Your task to perform on an android device: toggle notifications settings in the gmail app Image 0: 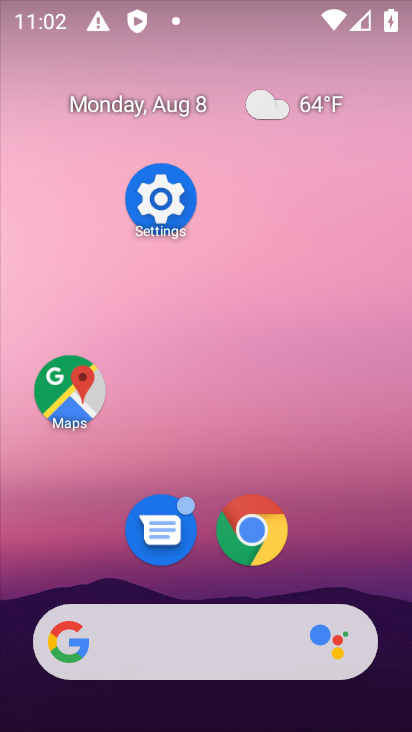
Step 0: drag from (273, 626) to (193, 204)
Your task to perform on an android device: toggle notifications settings in the gmail app Image 1: 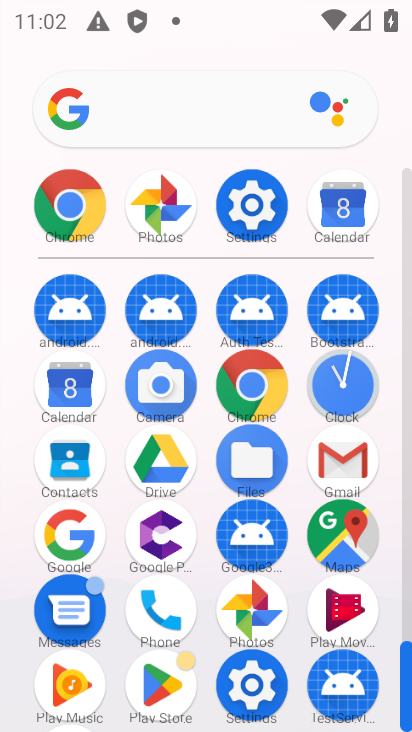
Step 1: click (195, 248)
Your task to perform on an android device: toggle notifications settings in the gmail app Image 2: 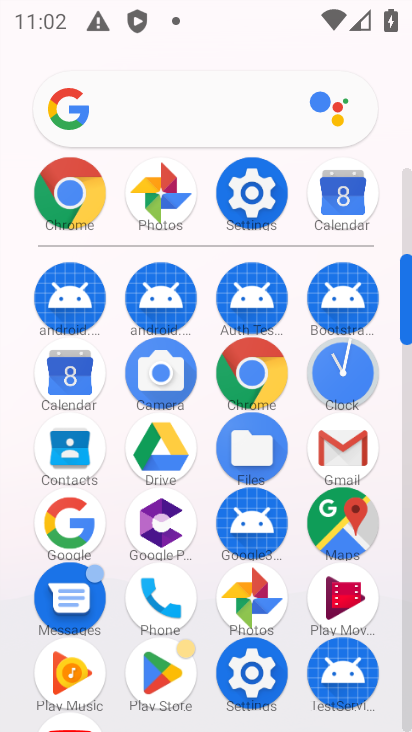
Step 2: click (348, 443)
Your task to perform on an android device: toggle notifications settings in the gmail app Image 3: 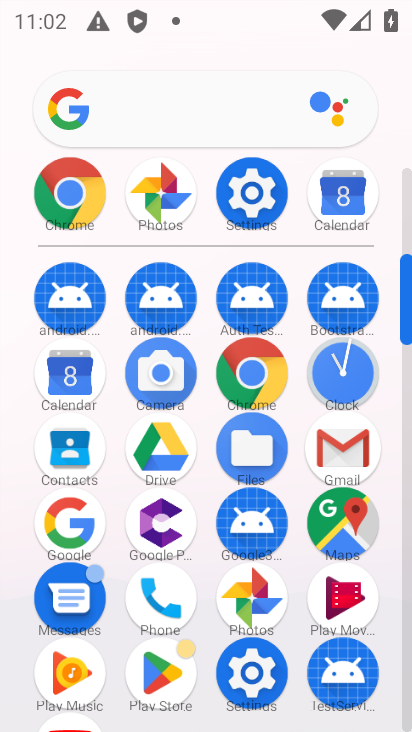
Step 3: click (348, 443)
Your task to perform on an android device: toggle notifications settings in the gmail app Image 4: 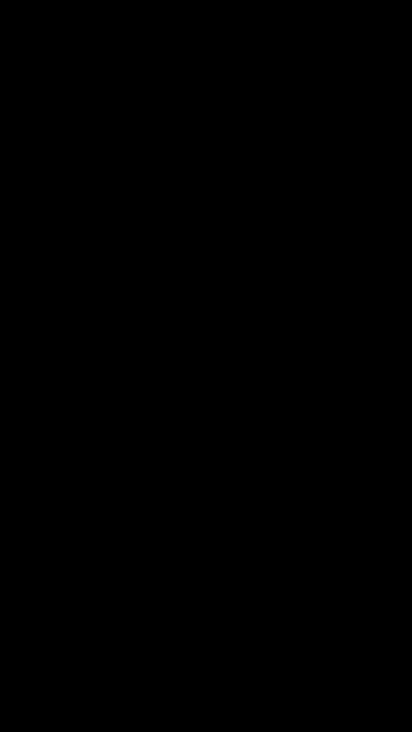
Step 4: click (351, 446)
Your task to perform on an android device: toggle notifications settings in the gmail app Image 5: 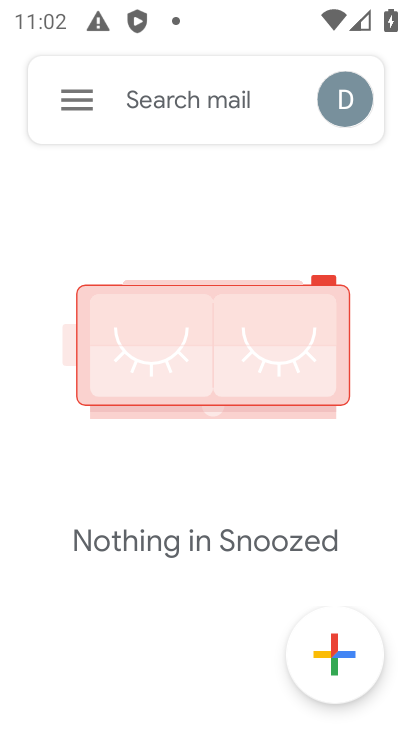
Step 5: click (79, 92)
Your task to perform on an android device: toggle notifications settings in the gmail app Image 6: 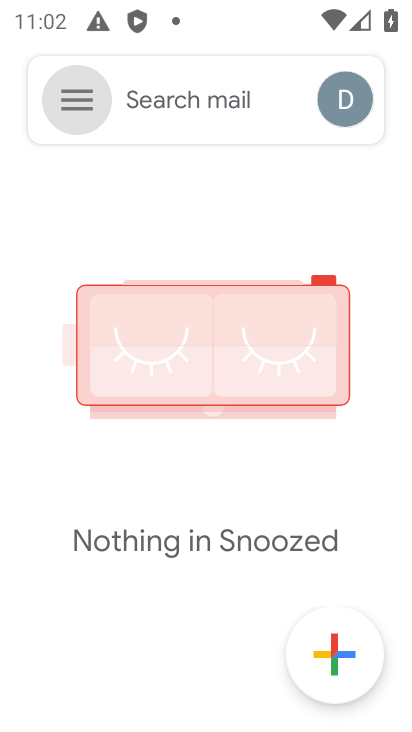
Step 6: click (78, 99)
Your task to perform on an android device: toggle notifications settings in the gmail app Image 7: 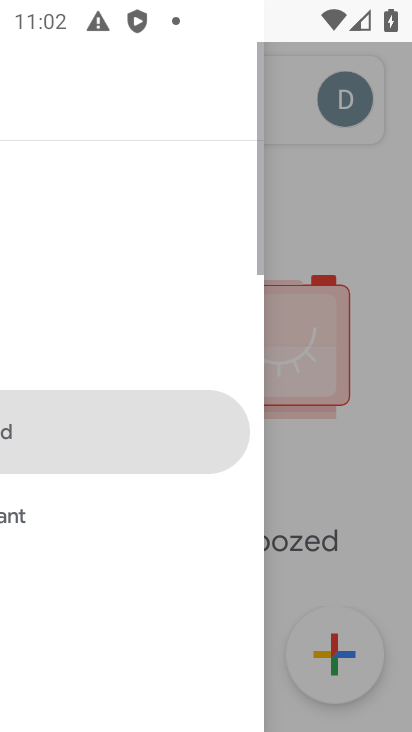
Step 7: click (78, 99)
Your task to perform on an android device: toggle notifications settings in the gmail app Image 8: 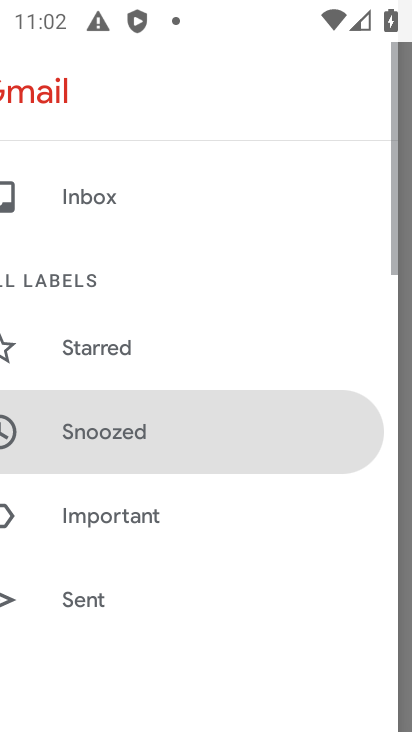
Step 8: drag from (78, 99) to (164, 579)
Your task to perform on an android device: toggle notifications settings in the gmail app Image 9: 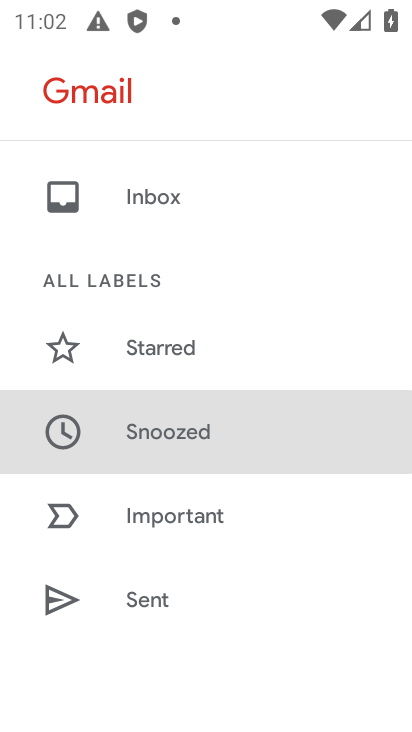
Step 9: drag from (164, 577) to (141, 262)
Your task to perform on an android device: toggle notifications settings in the gmail app Image 10: 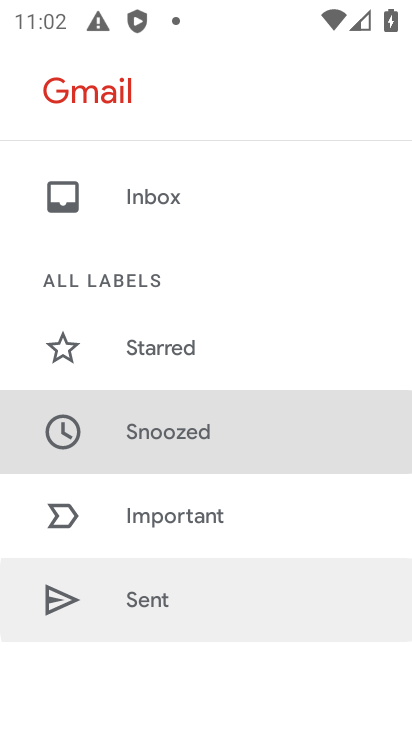
Step 10: drag from (206, 605) to (234, 226)
Your task to perform on an android device: toggle notifications settings in the gmail app Image 11: 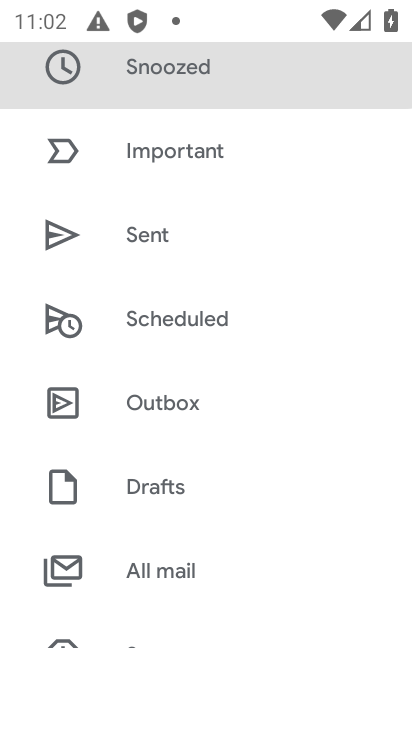
Step 11: drag from (233, 477) to (235, 171)
Your task to perform on an android device: toggle notifications settings in the gmail app Image 12: 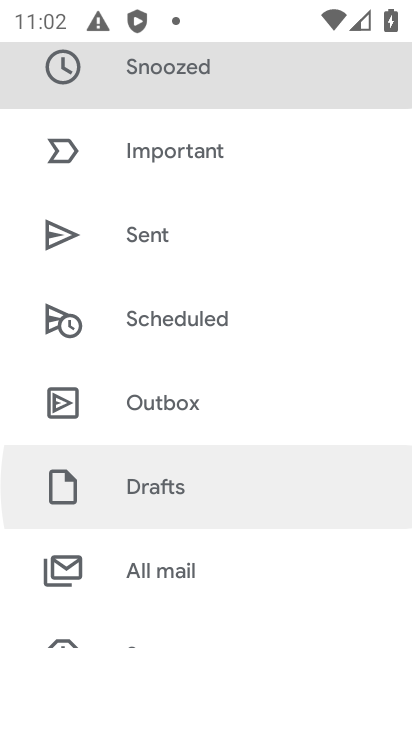
Step 12: drag from (304, 488) to (344, 183)
Your task to perform on an android device: toggle notifications settings in the gmail app Image 13: 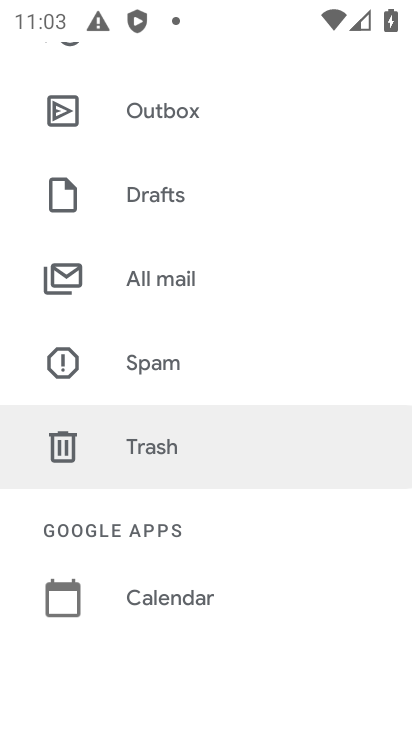
Step 13: drag from (281, 525) to (203, 265)
Your task to perform on an android device: toggle notifications settings in the gmail app Image 14: 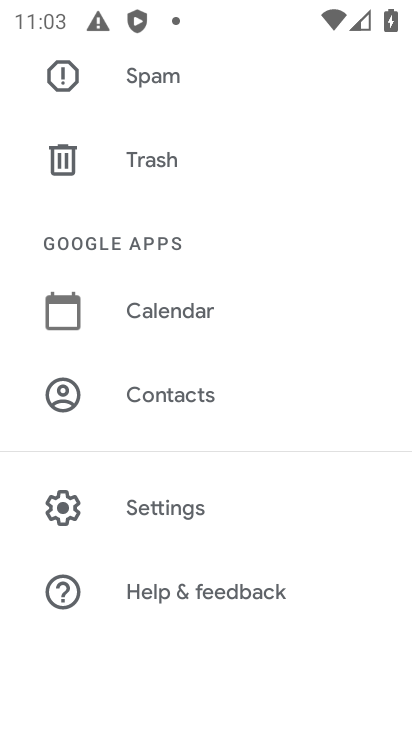
Step 14: drag from (230, 561) to (230, 197)
Your task to perform on an android device: toggle notifications settings in the gmail app Image 15: 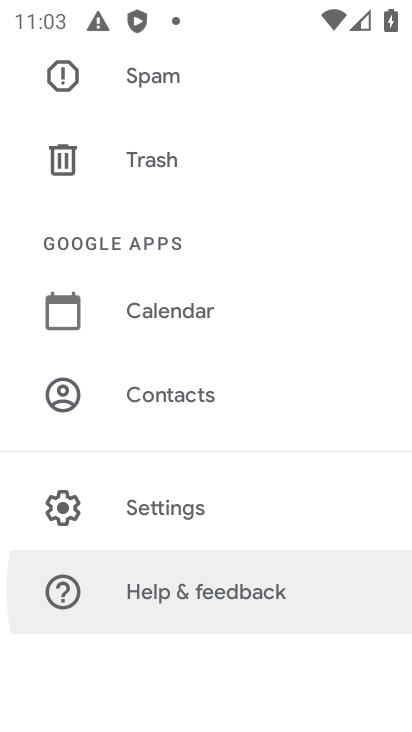
Step 15: drag from (230, 488) to (215, 263)
Your task to perform on an android device: toggle notifications settings in the gmail app Image 16: 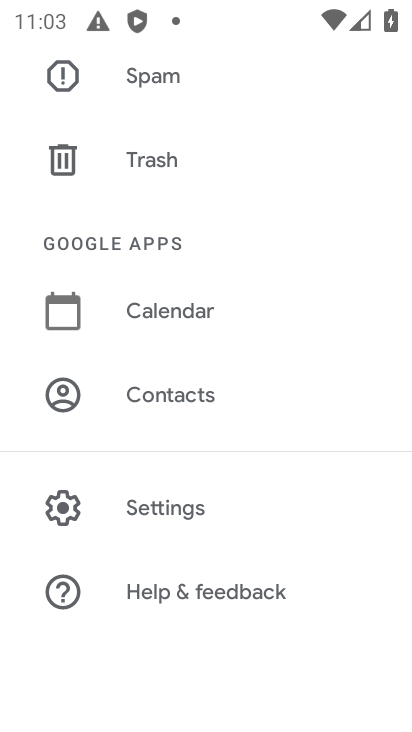
Step 16: click (171, 514)
Your task to perform on an android device: toggle notifications settings in the gmail app Image 17: 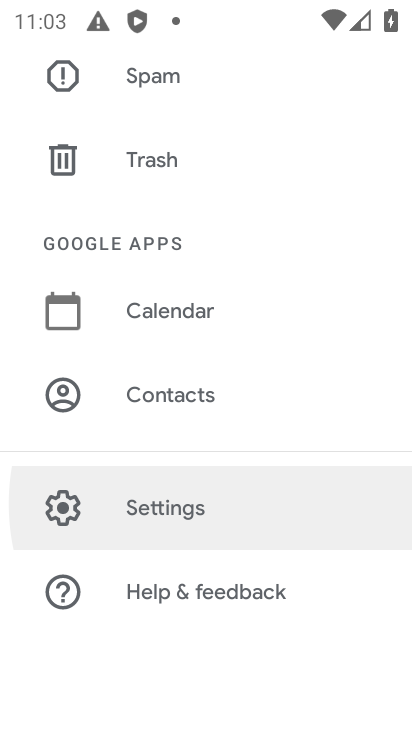
Step 17: click (171, 514)
Your task to perform on an android device: toggle notifications settings in the gmail app Image 18: 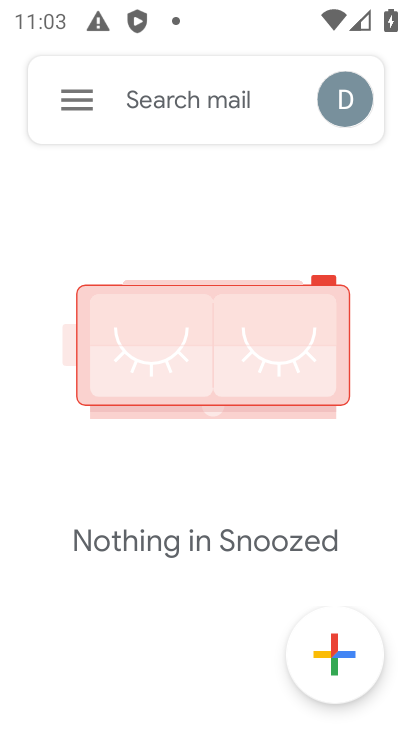
Step 18: click (168, 515)
Your task to perform on an android device: toggle notifications settings in the gmail app Image 19: 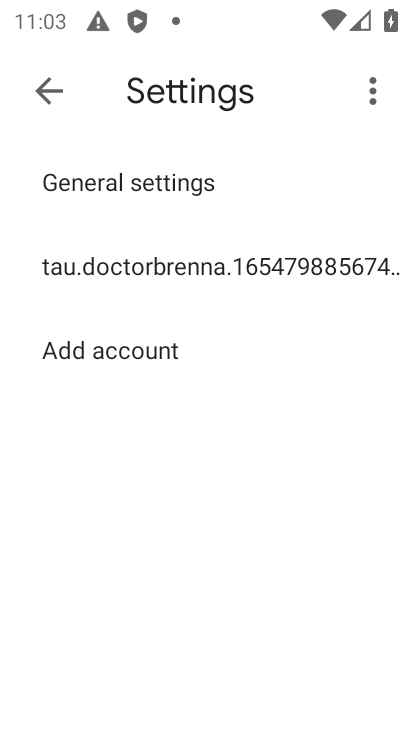
Step 19: click (167, 270)
Your task to perform on an android device: toggle notifications settings in the gmail app Image 20: 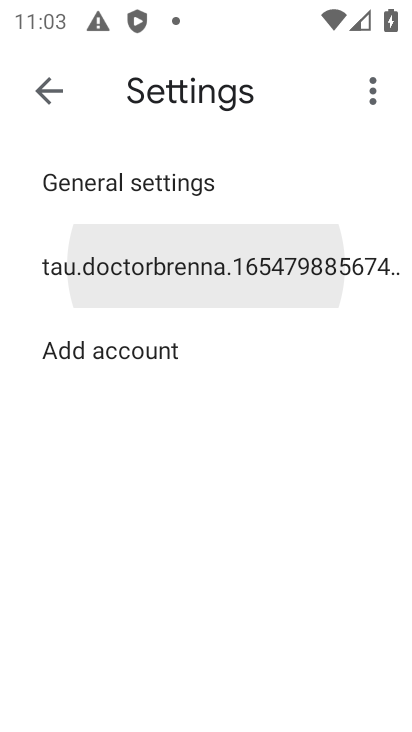
Step 20: click (167, 270)
Your task to perform on an android device: toggle notifications settings in the gmail app Image 21: 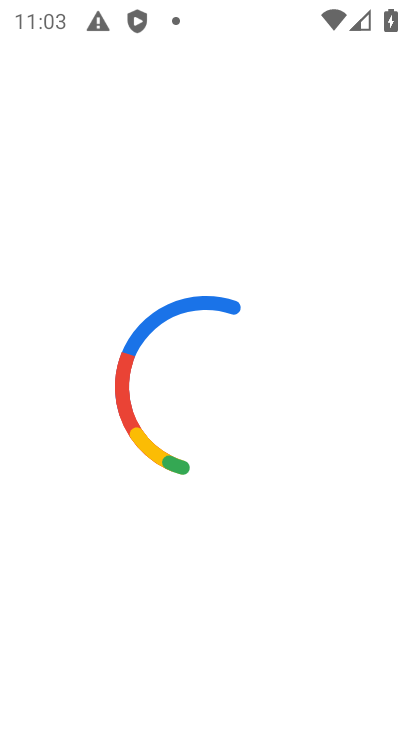
Step 21: click (230, 151)
Your task to perform on an android device: toggle notifications settings in the gmail app Image 22: 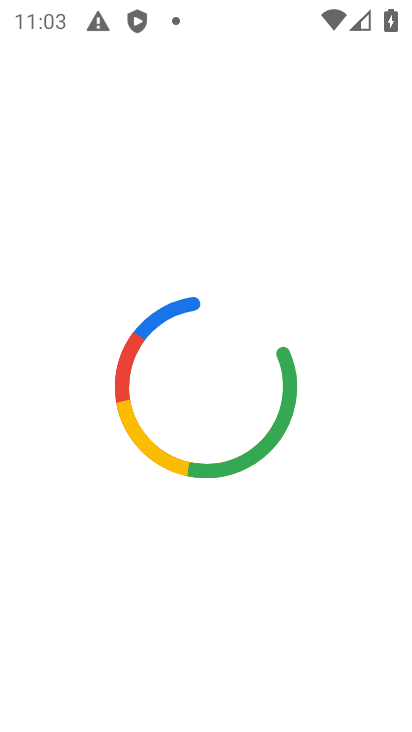
Step 22: drag from (218, 600) to (216, 448)
Your task to perform on an android device: toggle notifications settings in the gmail app Image 23: 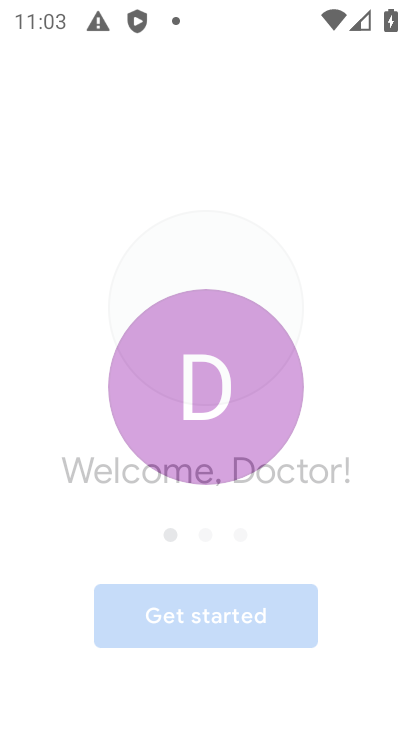
Step 23: press back button
Your task to perform on an android device: toggle notifications settings in the gmail app Image 24: 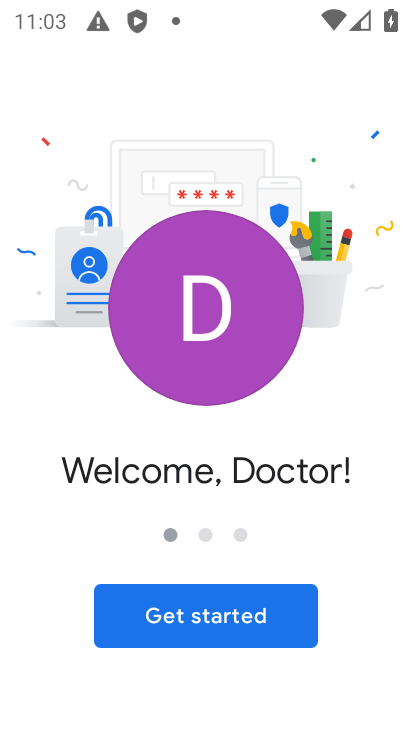
Step 24: press back button
Your task to perform on an android device: toggle notifications settings in the gmail app Image 25: 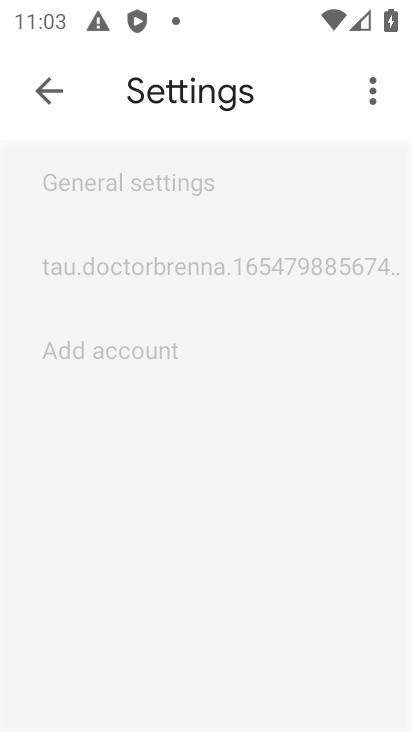
Step 25: press home button
Your task to perform on an android device: toggle notifications settings in the gmail app Image 26: 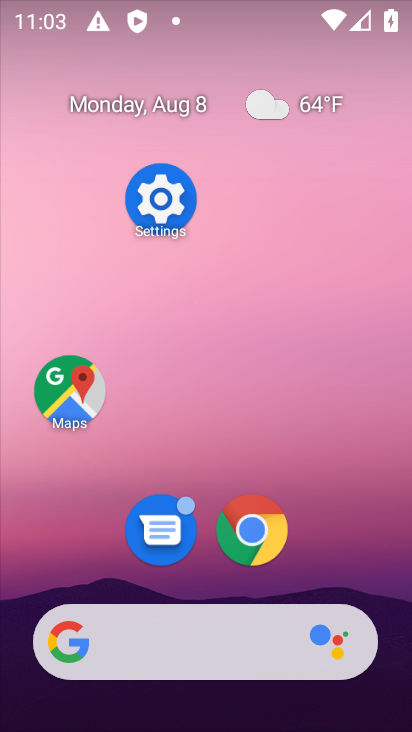
Step 26: drag from (279, 690) to (228, 209)
Your task to perform on an android device: toggle notifications settings in the gmail app Image 27: 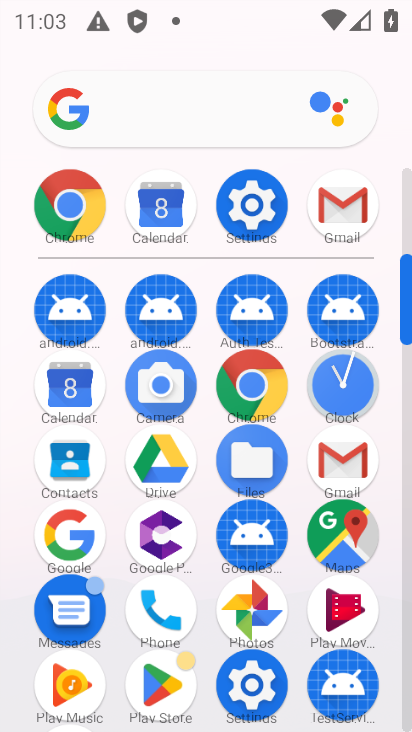
Step 27: click (235, 212)
Your task to perform on an android device: toggle notifications settings in the gmail app Image 28: 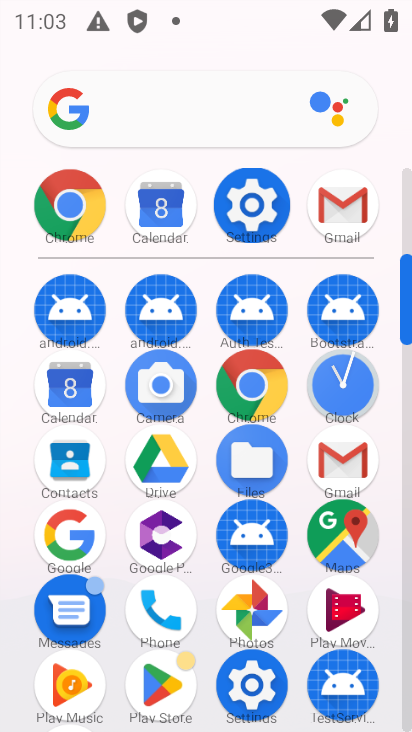
Step 28: click (236, 213)
Your task to perform on an android device: toggle notifications settings in the gmail app Image 29: 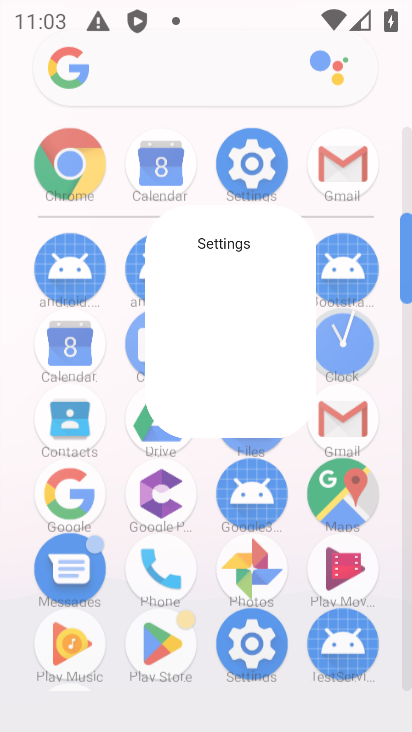
Step 29: click (238, 213)
Your task to perform on an android device: toggle notifications settings in the gmail app Image 30: 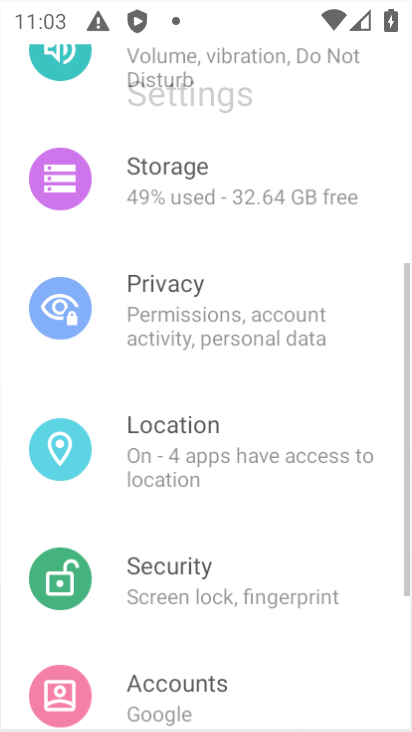
Step 30: click (239, 213)
Your task to perform on an android device: toggle notifications settings in the gmail app Image 31: 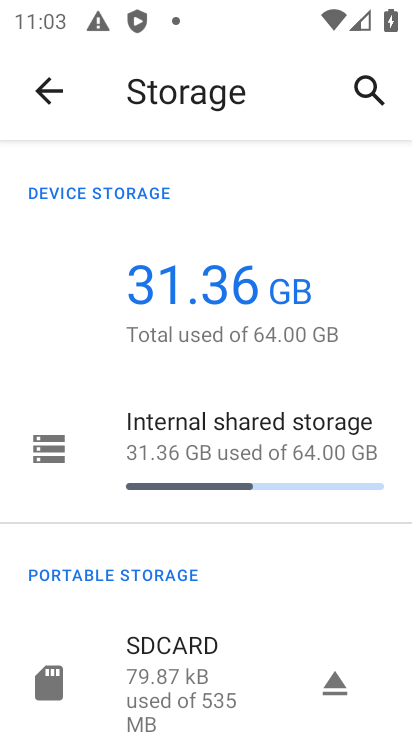
Step 31: click (32, 94)
Your task to perform on an android device: toggle notifications settings in the gmail app Image 32: 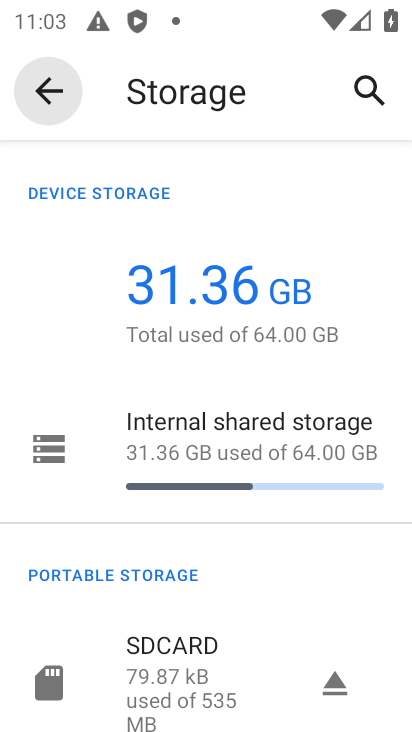
Step 32: click (33, 96)
Your task to perform on an android device: toggle notifications settings in the gmail app Image 33: 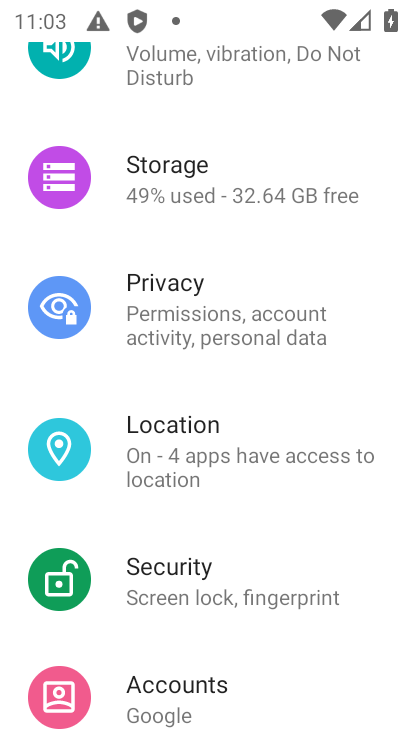
Step 33: drag from (173, 625) to (105, 155)
Your task to perform on an android device: toggle notifications settings in the gmail app Image 34: 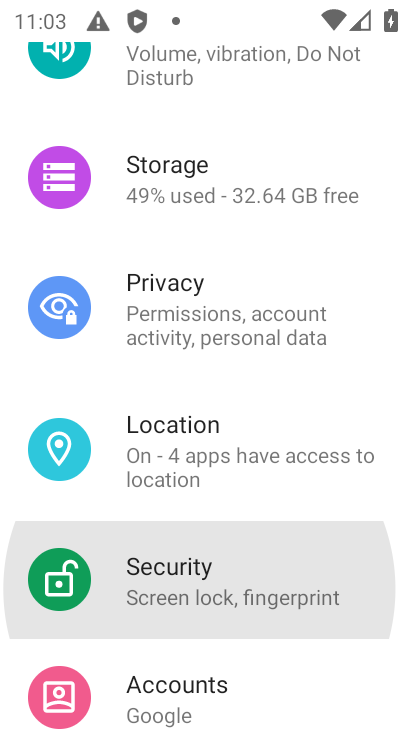
Step 34: drag from (169, 551) to (173, 164)
Your task to perform on an android device: toggle notifications settings in the gmail app Image 35: 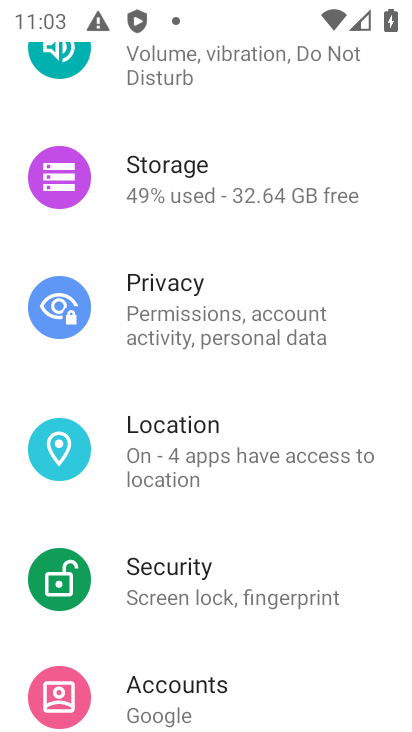
Step 35: drag from (204, 608) to (188, 149)
Your task to perform on an android device: toggle notifications settings in the gmail app Image 36: 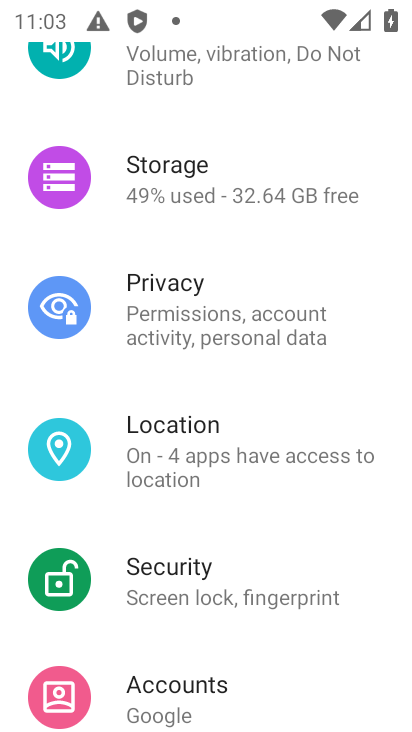
Step 36: drag from (139, 577) to (121, 232)
Your task to perform on an android device: toggle notifications settings in the gmail app Image 37: 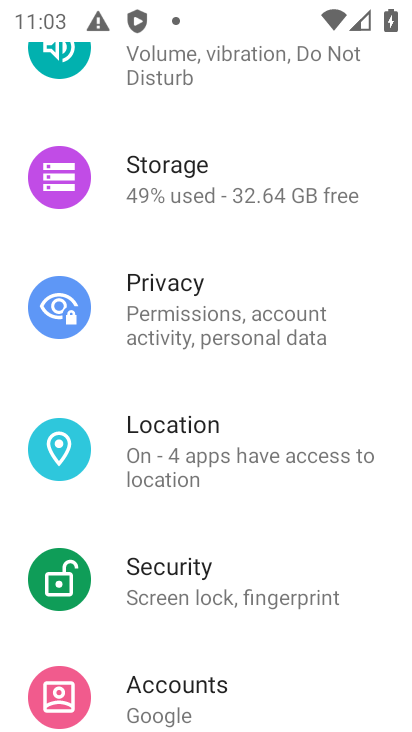
Step 37: drag from (180, 148) to (213, 551)
Your task to perform on an android device: toggle notifications settings in the gmail app Image 38: 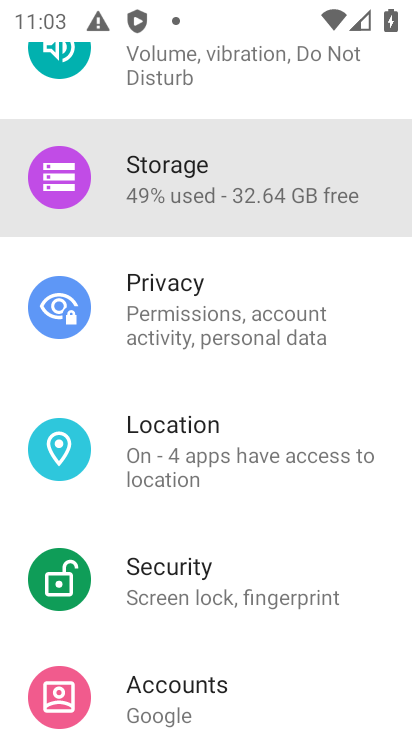
Step 38: drag from (161, 222) to (177, 589)
Your task to perform on an android device: toggle notifications settings in the gmail app Image 39: 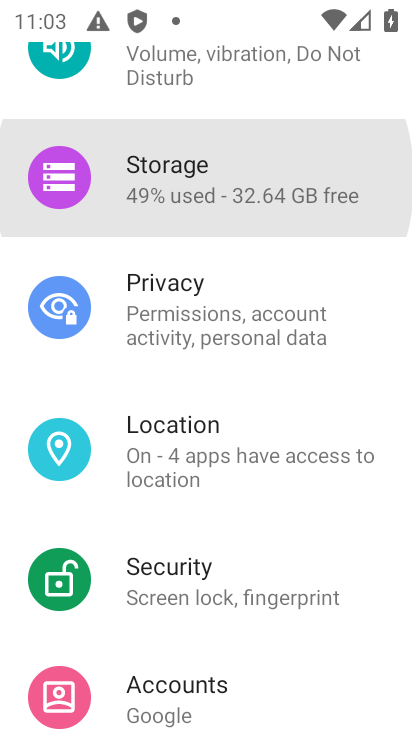
Step 39: drag from (106, 176) to (237, 645)
Your task to perform on an android device: toggle notifications settings in the gmail app Image 40: 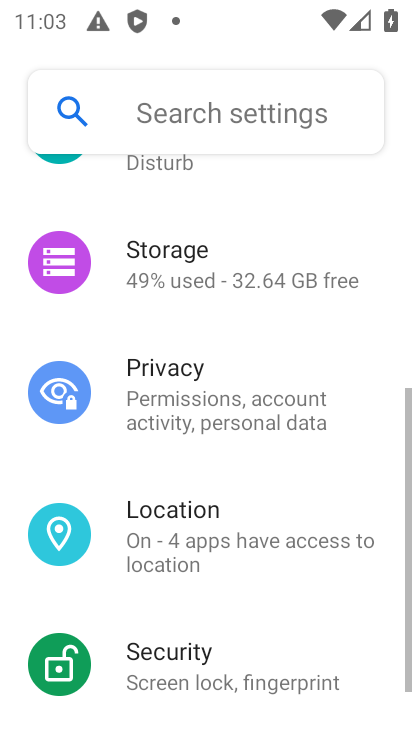
Step 40: drag from (159, 310) to (212, 617)
Your task to perform on an android device: toggle notifications settings in the gmail app Image 41: 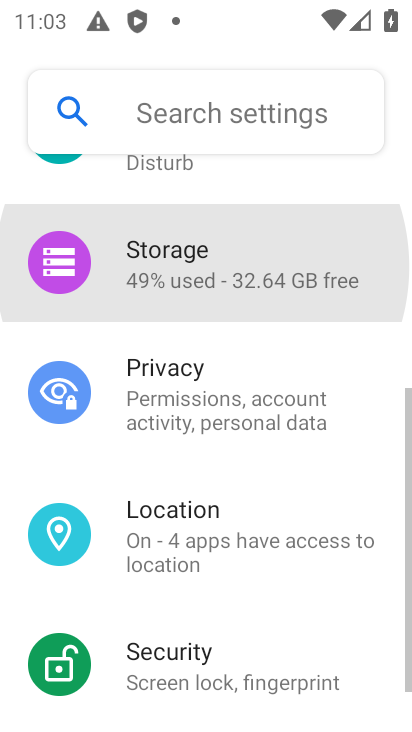
Step 41: drag from (133, 254) to (182, 577)
Your task to perform on an android device: toggle notifications settings in the gmail app Image 42: 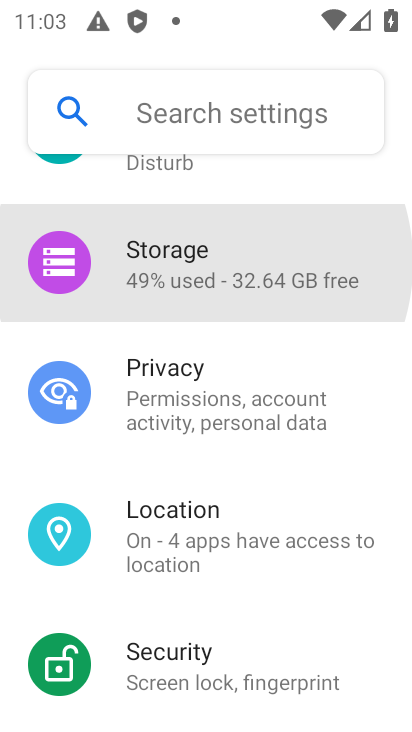
Step 42: drag from (77, 190) to (132, 581)
Your task to perform on an android device: toggle notifications settings in the gmail app Image 43: 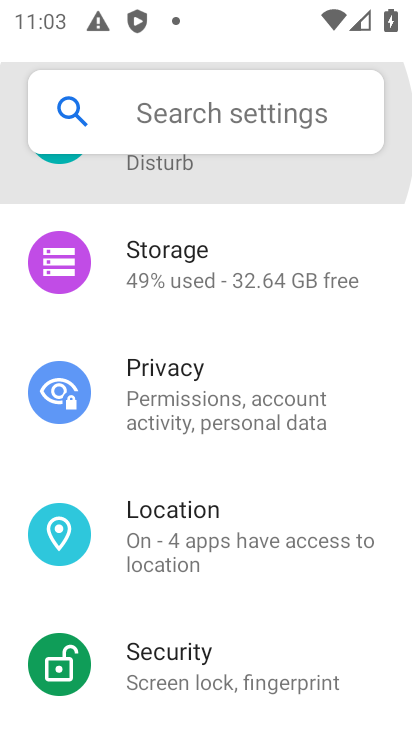
Step 43: drag from (112, 247) to (214, 625)
Your task to perform on an android device: toggle notifications settings in the gmail app Image 44: 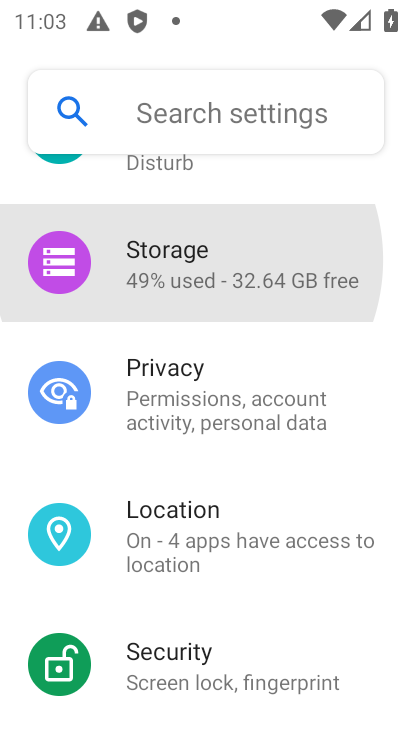
Step 44: drag from (197, 326) to (238, 637)
Your task to perform on an android device: toggle notifications settings in the gmail app Image 45: 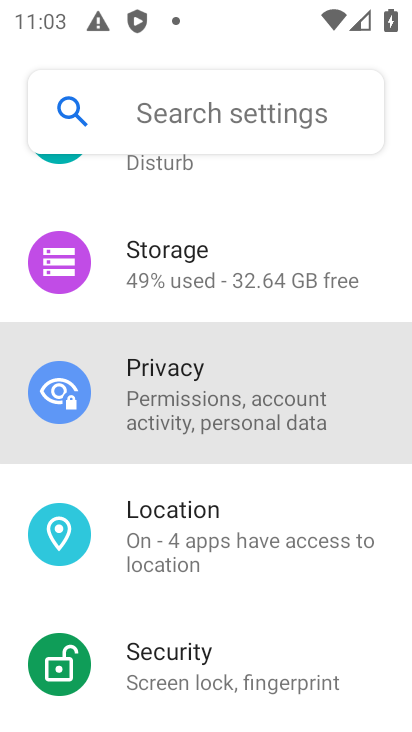
Step 45: drag from (201, 292) to (240, 562)
Your task to perform on an android device: toggle notifications settings in the gmail app Image 46: 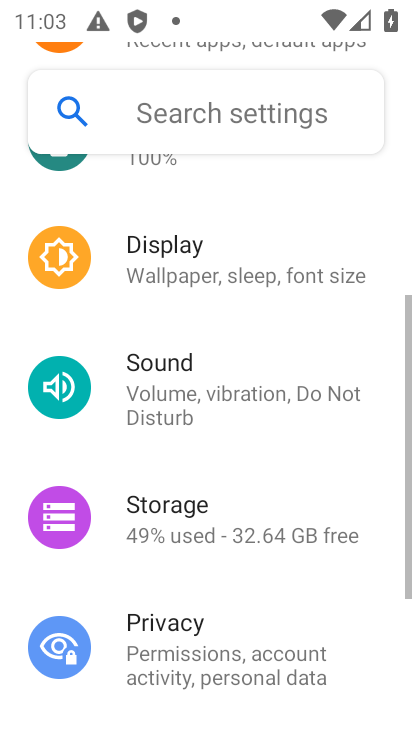
Step 46: drag from (207, 325) to (236, 527)
Your task to perform on an android device: toggle notifications settings in the gmail app Image 47: 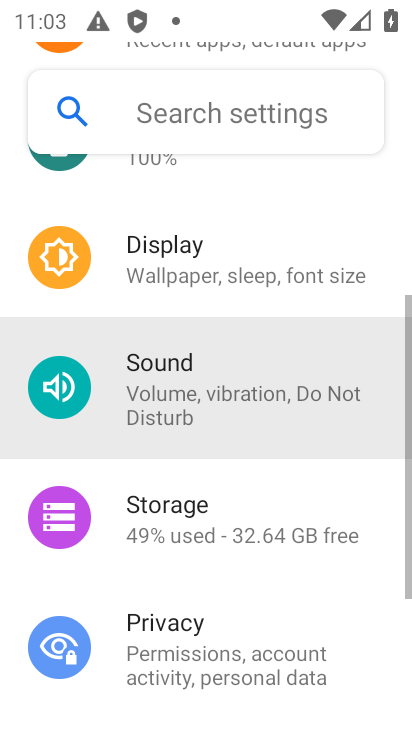
Step 47: drag from (247, 322) to (278, 584)
Your task to perform on an android device: toggle notifications settings in the gmail app Image 48: 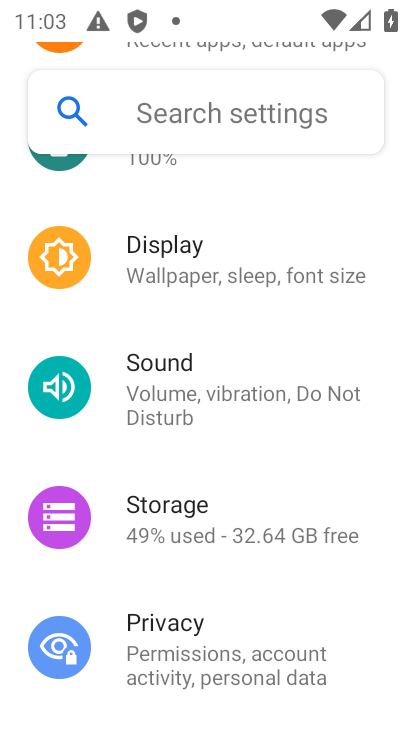
Step 48: drag from (260, 281) to (302, 539)
Your task to perform on an android device: toggle notifications settings in the gmail app Image 49: 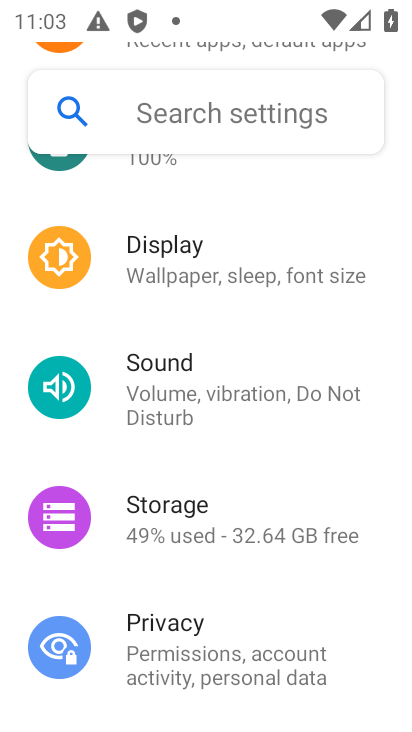
Step 49: drag from (349, 287) to (404, 501)
Your task to perform on an android device: toggle notifications settings in the gmail app Image 50: 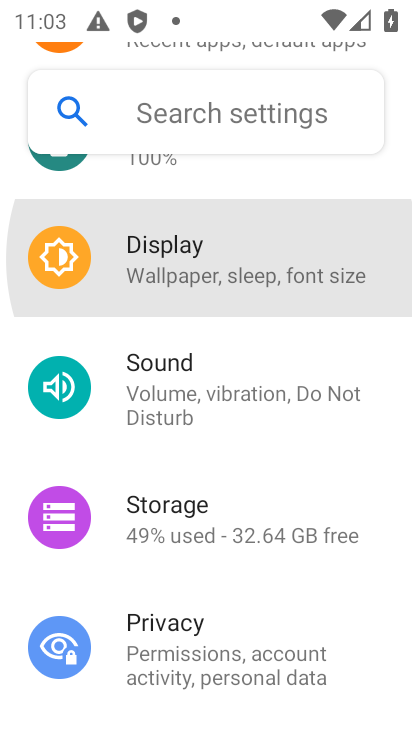
Step 50: drag from (289, 266) to (309, 628)
Your task to perform on an android device: toggle notifications settings in the gmail app Image 51: 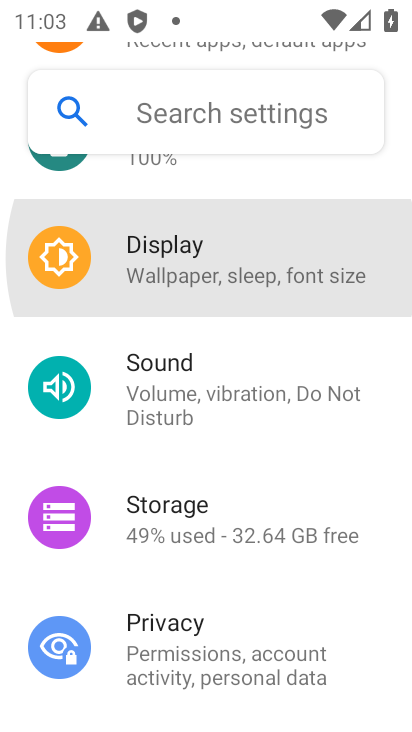
Step 51: drag from (167, 339) to (220, 703)
Your task to perform on an android device: toggle notifications settings in the gmail app Image 52: 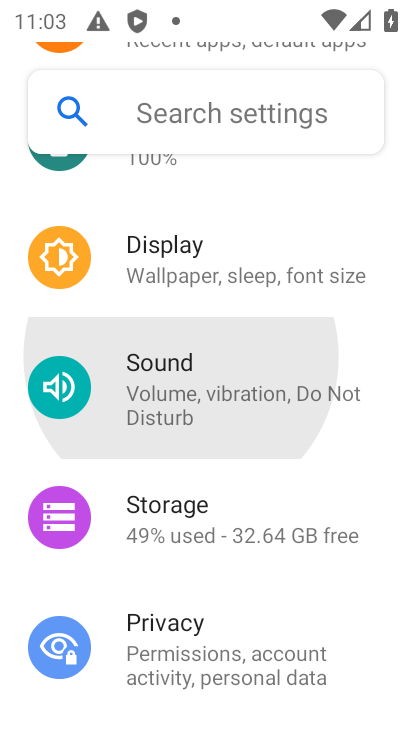
Step 52: drag from (157, 266) to (200, 628)
Your task to perform on an android device: toggle notifications settings in the gmail app Image 53: 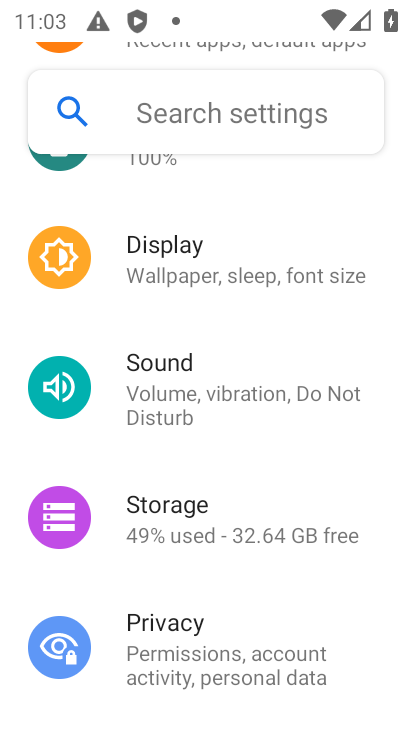
Step 53: drag from (178, 236) to (211, 467)
Your task to perform on an android device: toggle notifications settings in the gmail app Image 54: 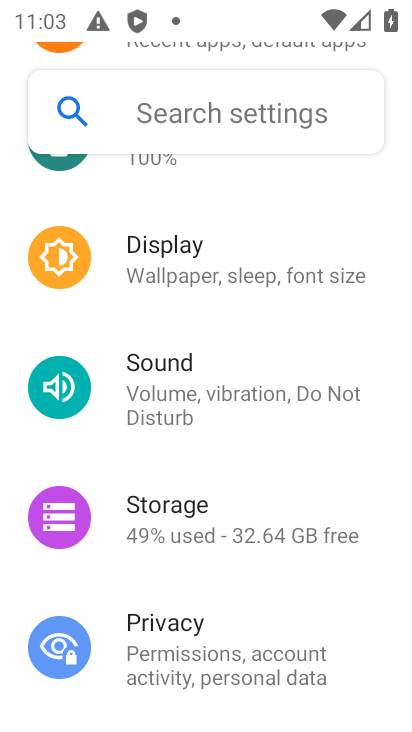
Step 54: drag from (179, 258) to (203, 474)
Your task to perform on an android device: toggle notifications settings in the gmail app Image 55: 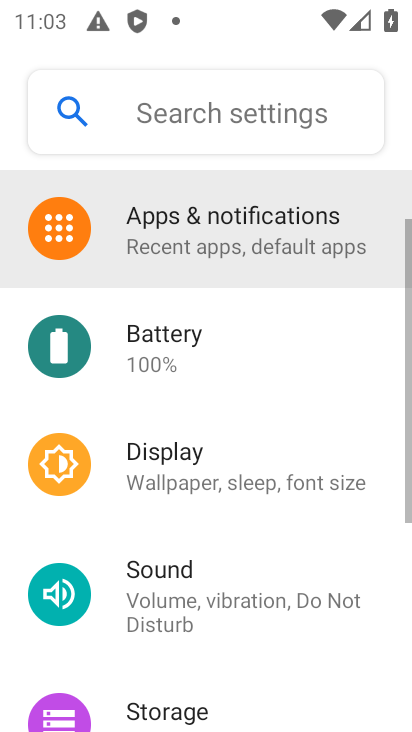
Step 55: drag from (153, 271) to (200, 511)
Your task to perform on an android device: toggle notifications settings in the gmail app Image 56: 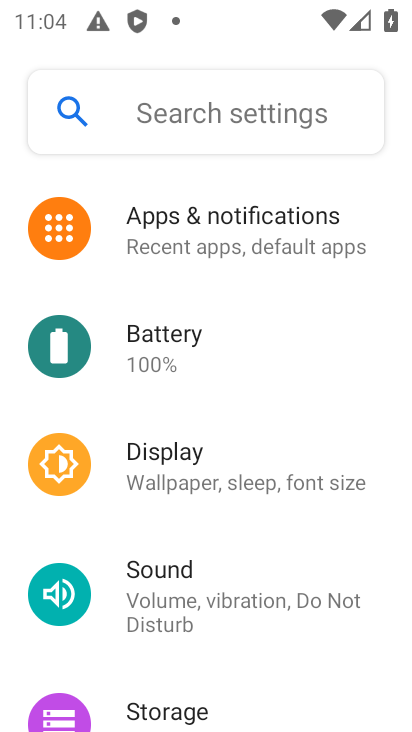
Step 56: click (228, 234)
Your task to perform on an android device: toggle notifications settings in the gmail app Image 57: 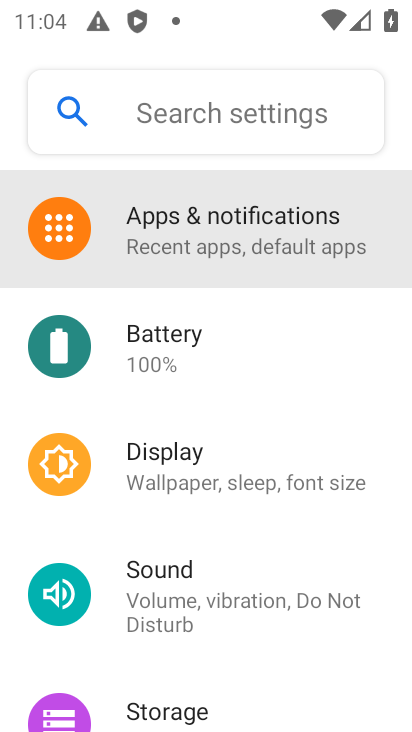
Step 57: click (234, 228)
Your task to perform on an android device: toggle notifications settings in the gmail app Image 58: 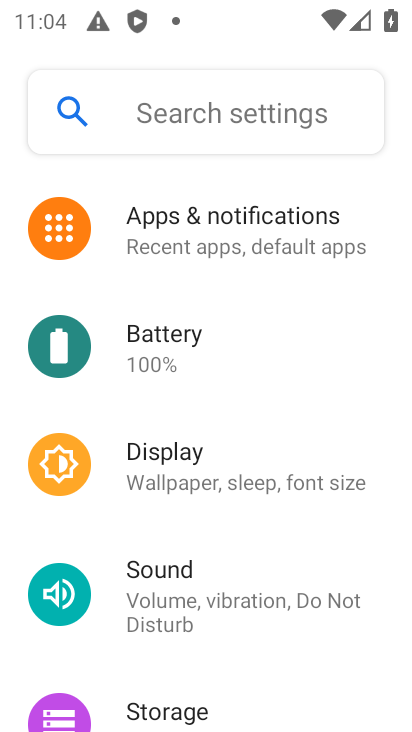
Step 58: click (234, 228)
Your task to perform on an android device: toggle notifications settings in the gmail app Image 59: 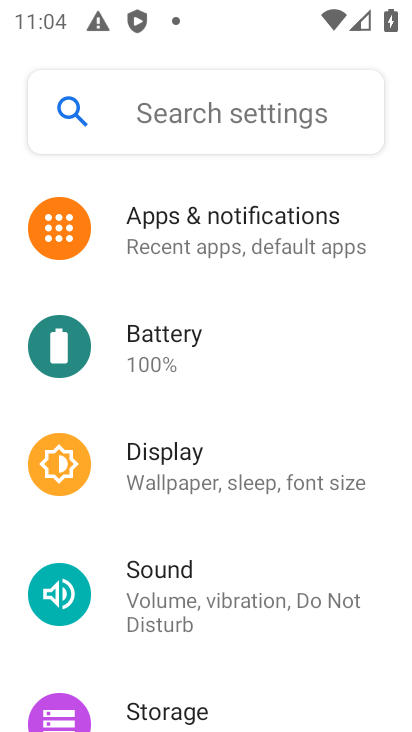
Step 59: click (238, 246)
Your task to perform on an android device: toggle notifications settings in the gmail app Image 60: 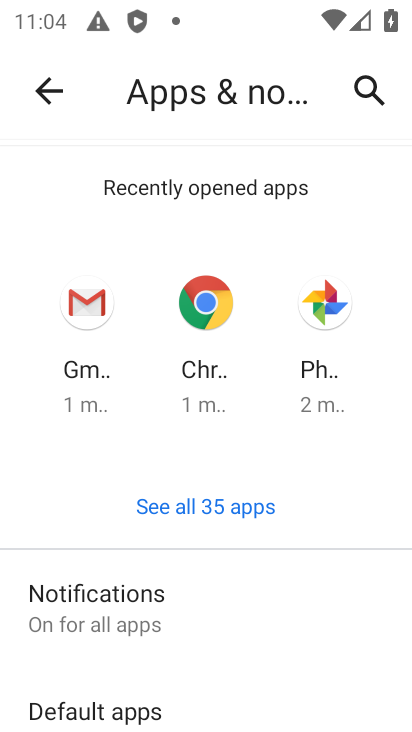
Step 60: drag from (180, 599) to (240, 183)
Your task to perform on an android device: toggle notifications settings in the gmail app Image 61: 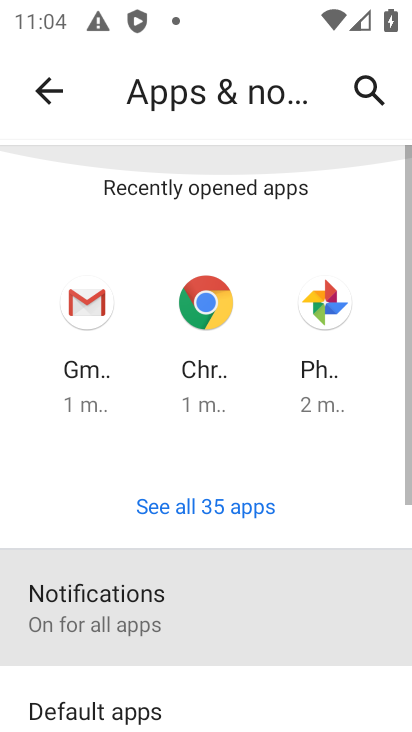
Step 61: drag from (266, 593) to (242, 370)
Your task to perform on an android device: toggle notifications settings in the gmail app Image 62: 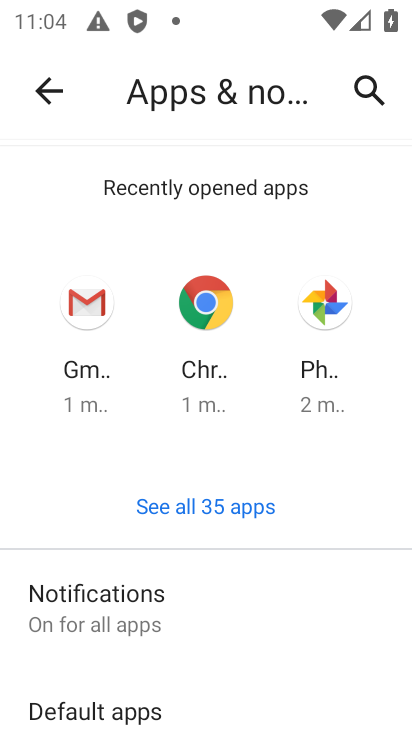
Step 62: drag from (222, 633) to (190, 316)
Your task to perform on an android device: toggle notifications settings in the gmail app Image 63: 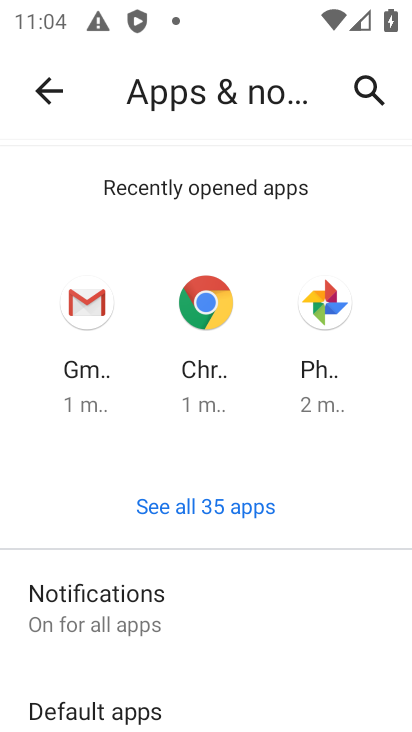
Step 63: drag from (155, 207) to (160, 167)
Your task to perform on an android device: toggle notifications settings in the gmail app Image 64: 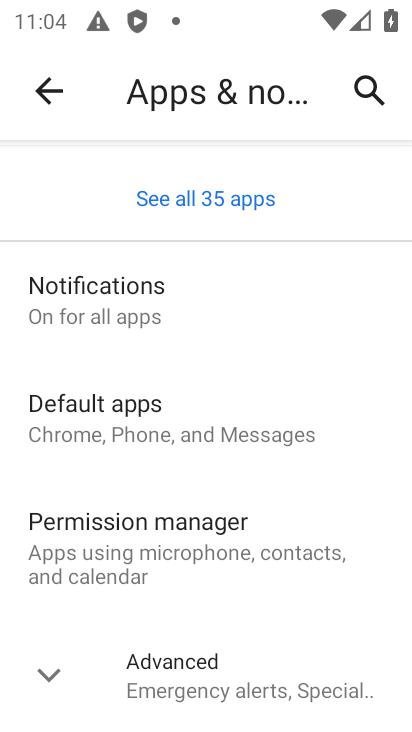
Step 64: click (84, 297)
Your task to perform on an android device: toggle notifications settings in the gmail app Image 65: 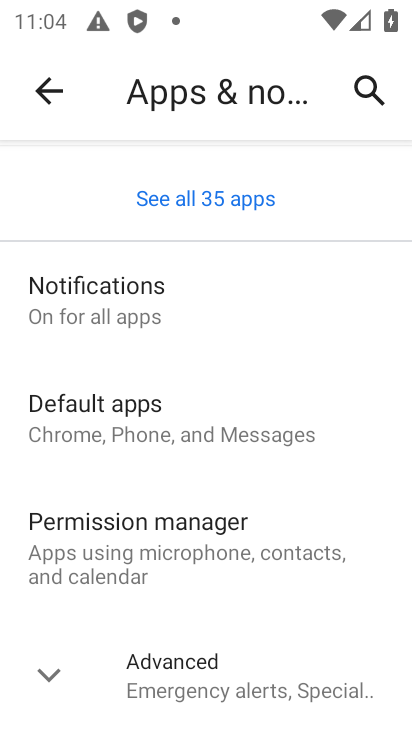
Step 65: click (84, 300)
Your task to perform on an android device: toggle notifications settings in the gmail app Image 66: 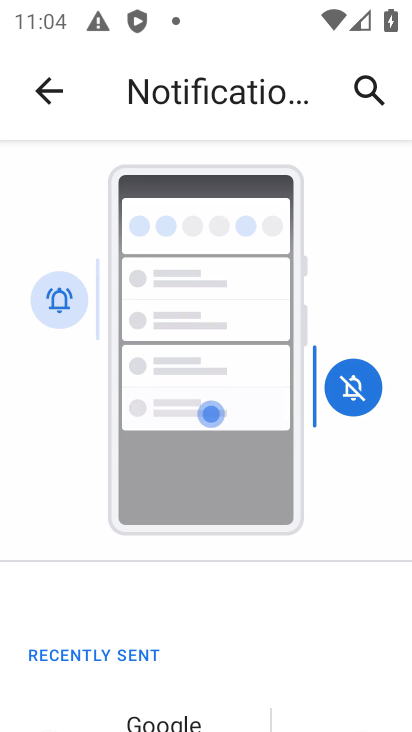
Step 66: task complete